Your task to perform on an android device: delete location history Image 0: 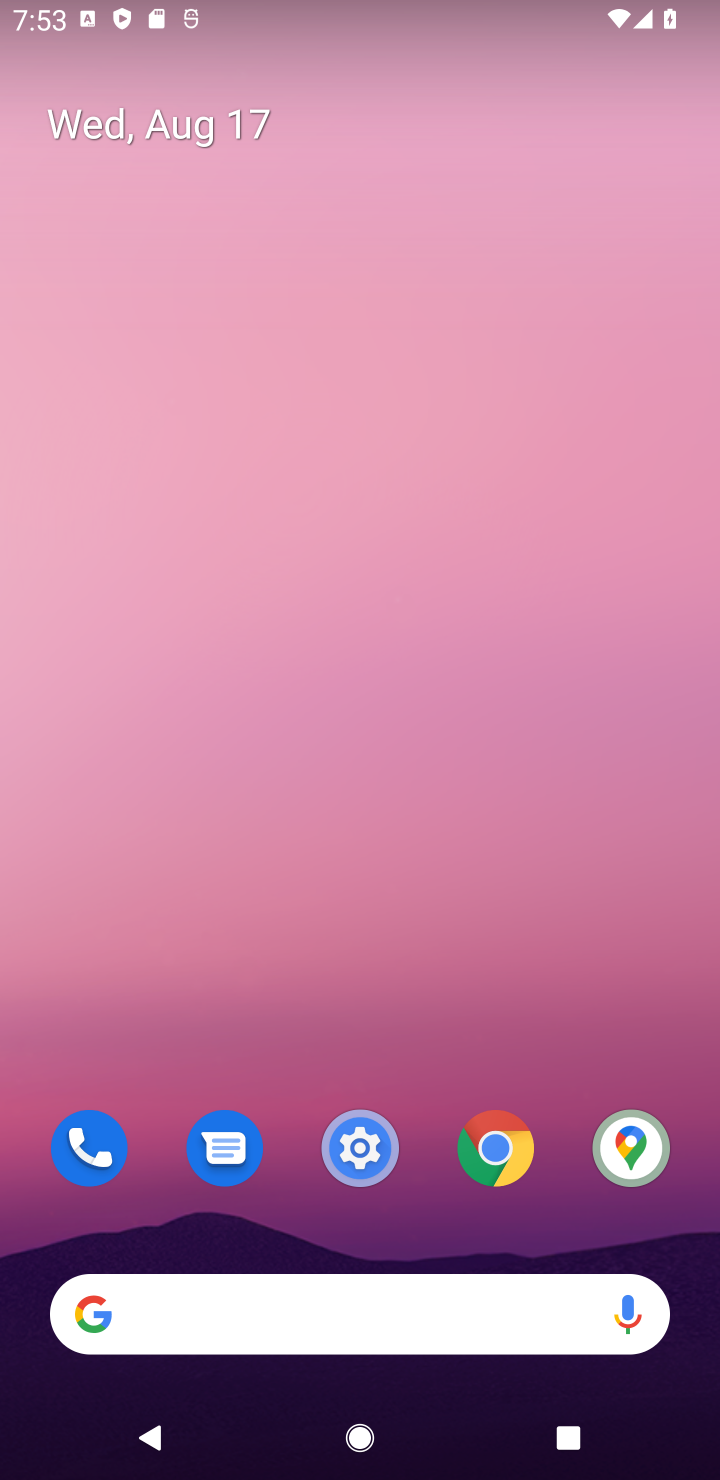
Step 0: click (633, 1151)
Your task to perform on an android device: delete location history Image 1: 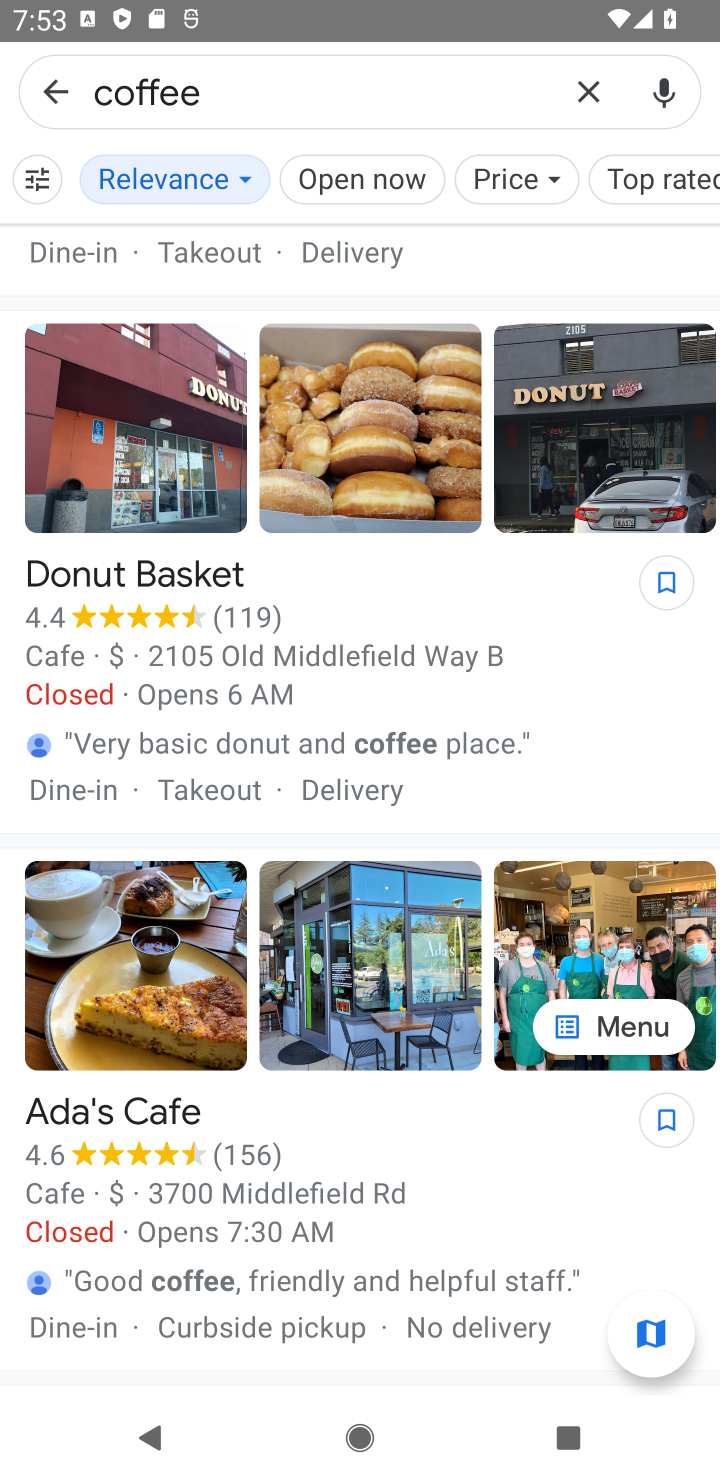
Step 1: click (588, 88)
Your task to perform on an android device: delete location history Image 2: 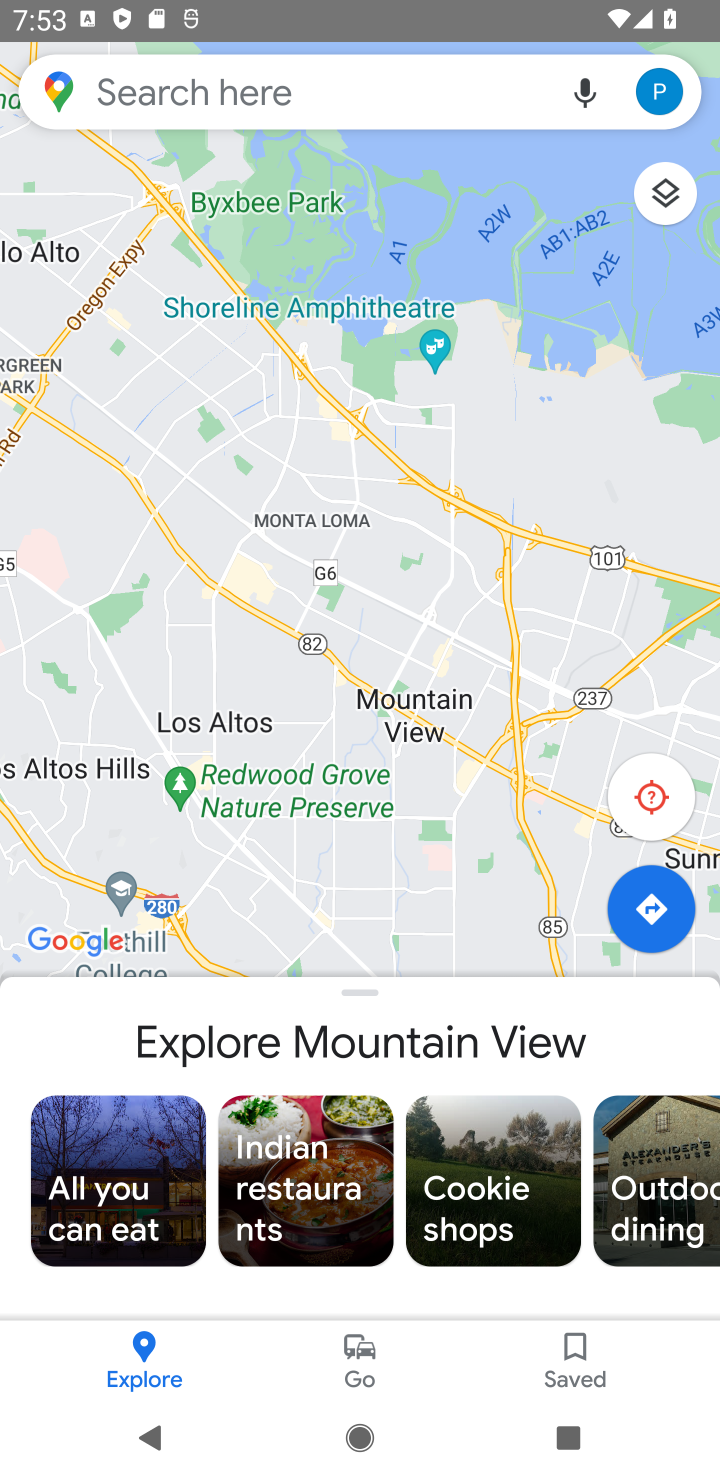
Step 2: click (661, 93)
Your task to perform on an android device: delete location history Image 3: 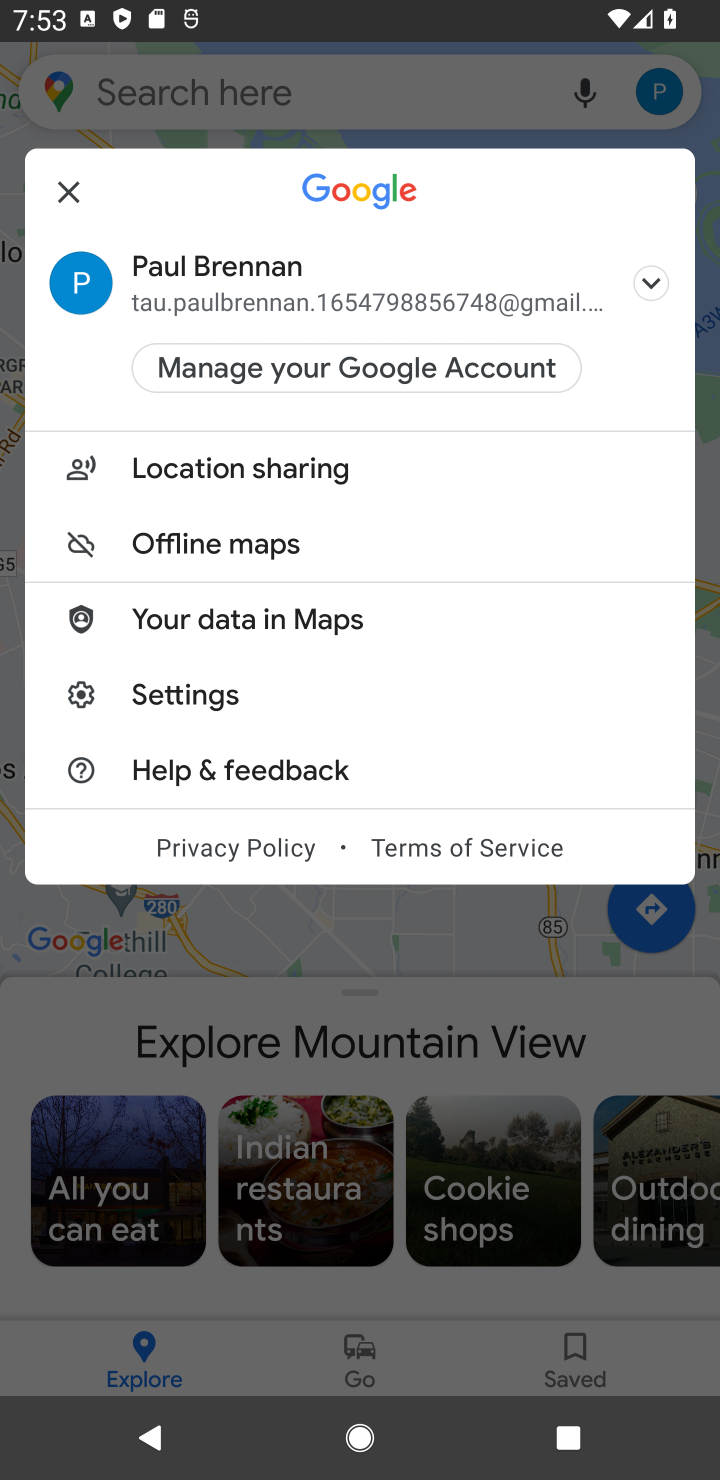
Step 3: click (166, 697)
Your task to perform on an android device: delete location history Image 4: 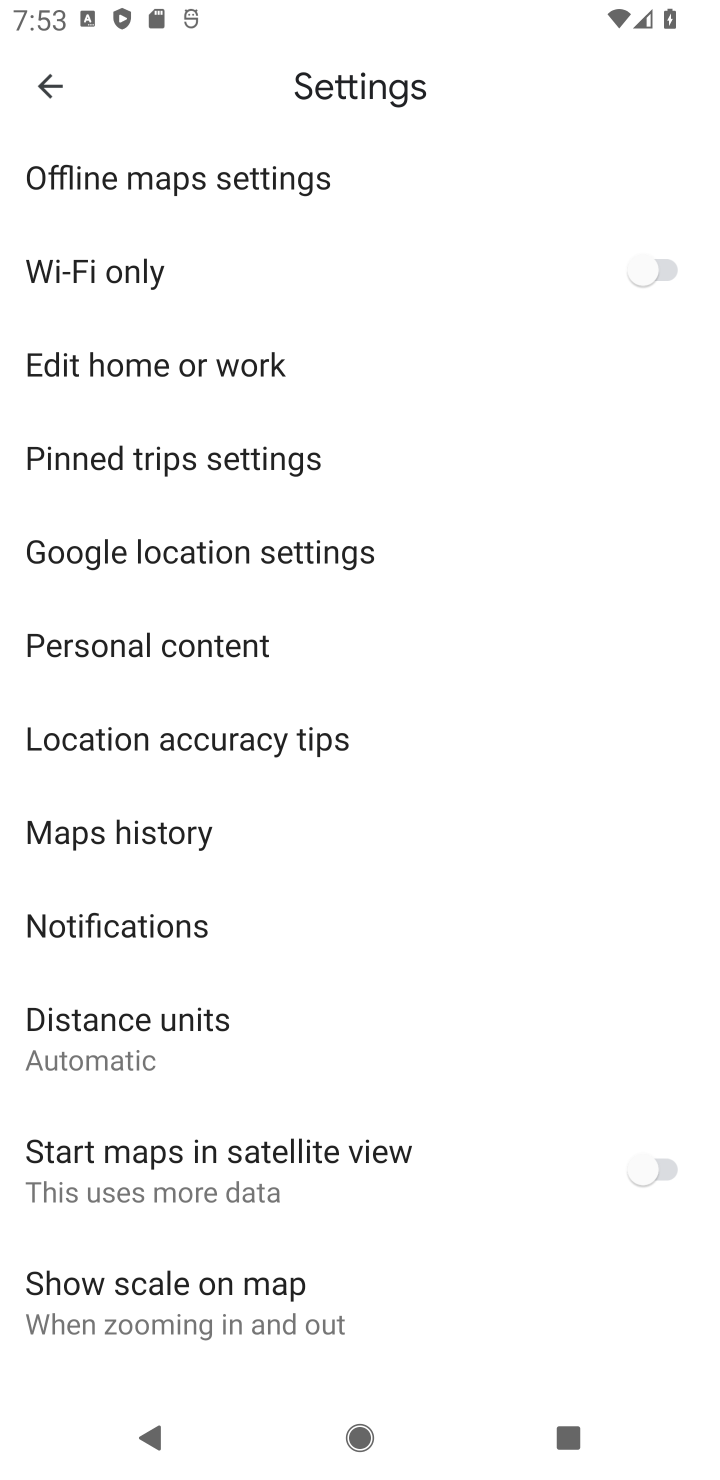
Step 4: click (153, 644)
Your task to perform on an android device: delete location history Image 5: 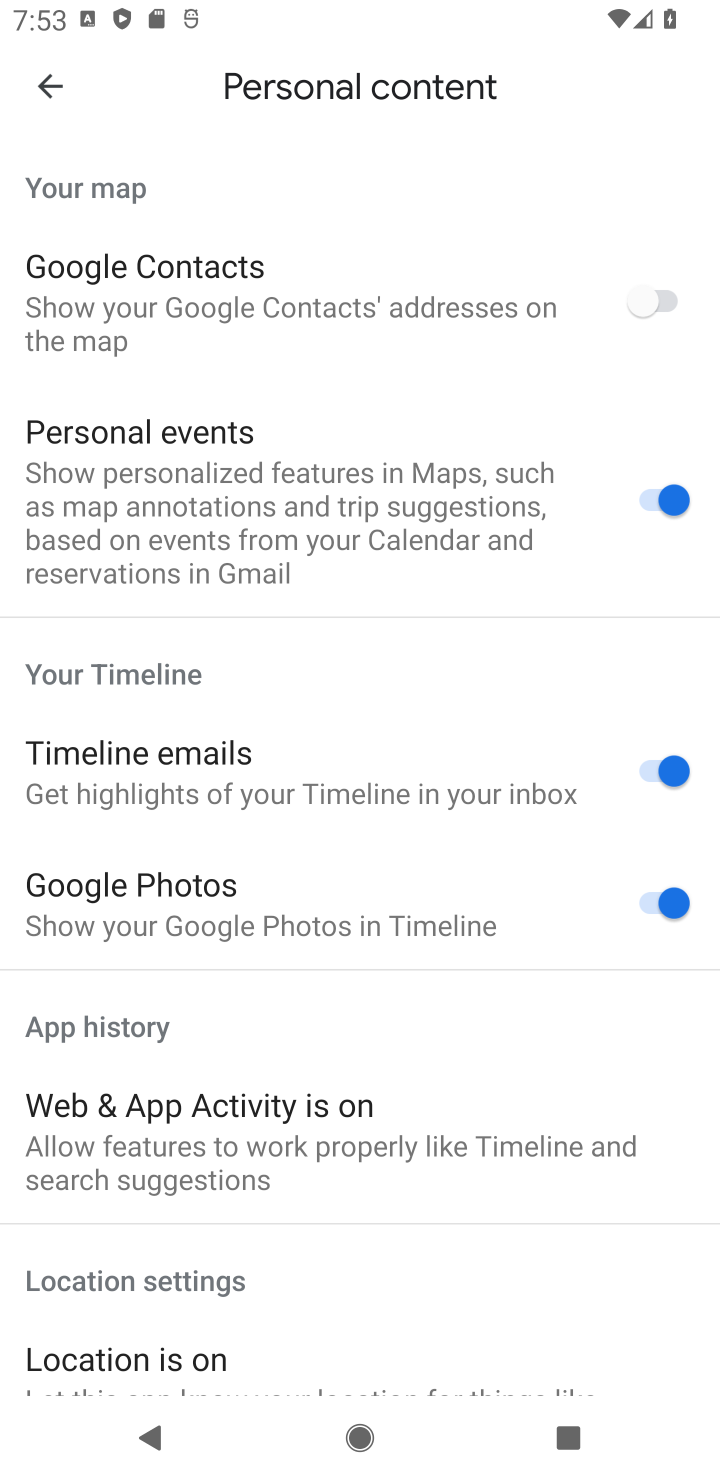
Step 5: drag from (457, 1003) to (463, 287)
Your task to perform on an android device: delete location history Image 6: 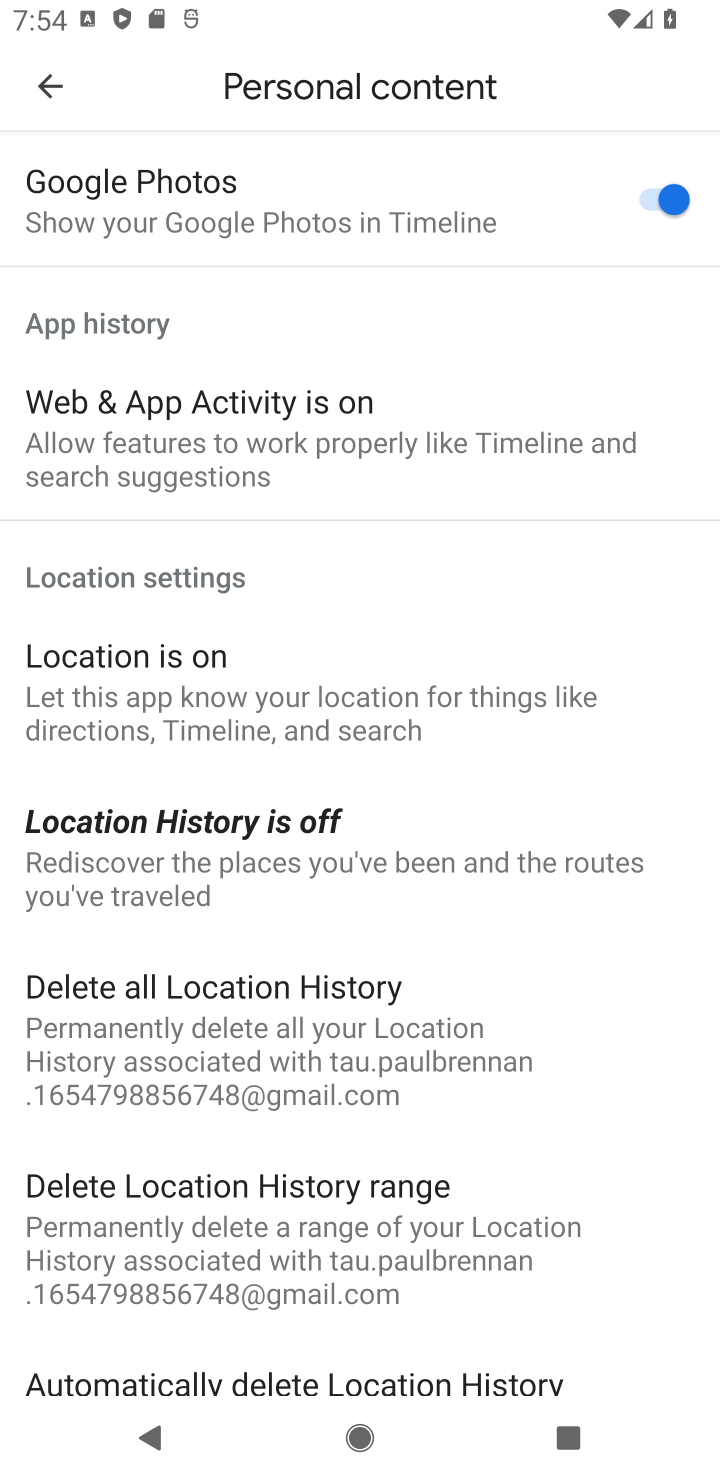
Step 6: click (193, 1024)
Your task to perform on an android device: delete location history Image 7: 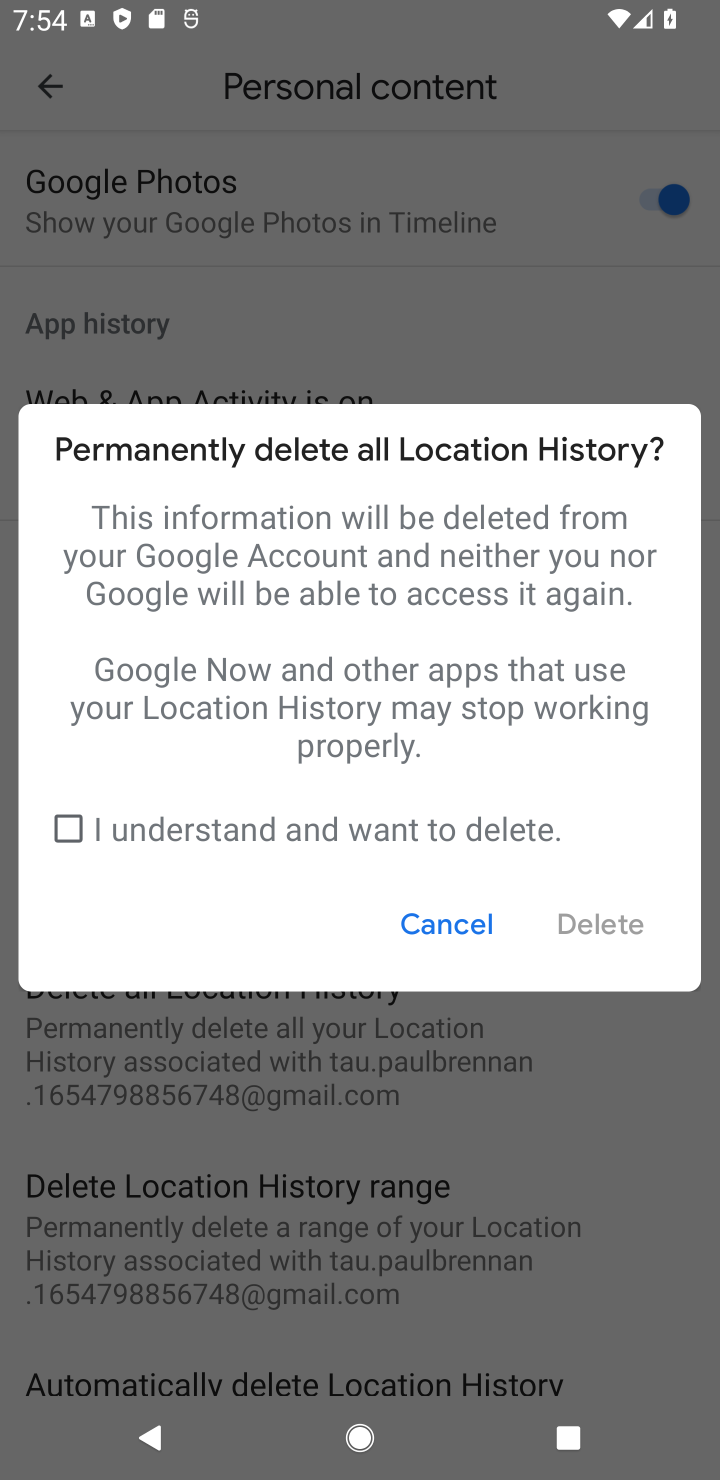
Step 7: click (71, 835)
Your task to perform on an android device: delete location history Image 8: 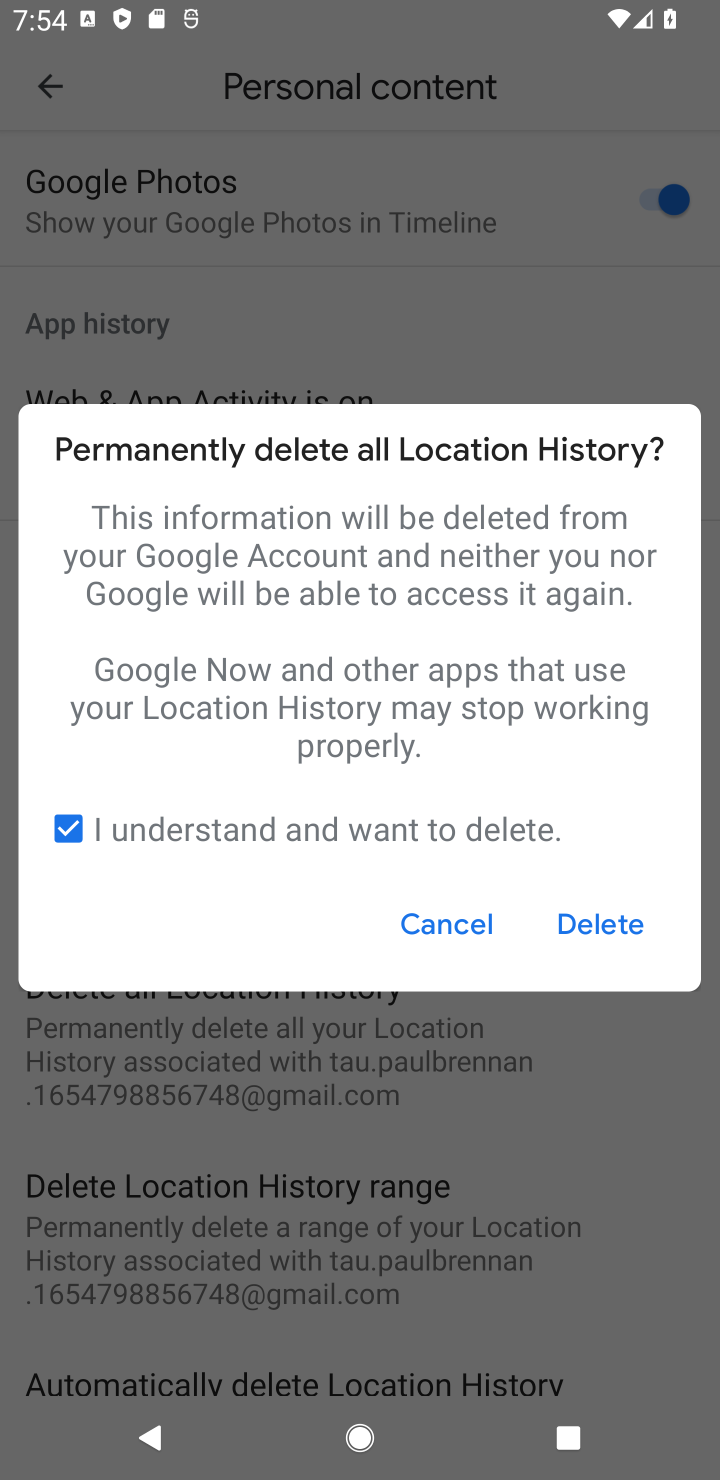
Step 8: click (609, 919)
Your task to perform on an android device: delete location history Image 9: 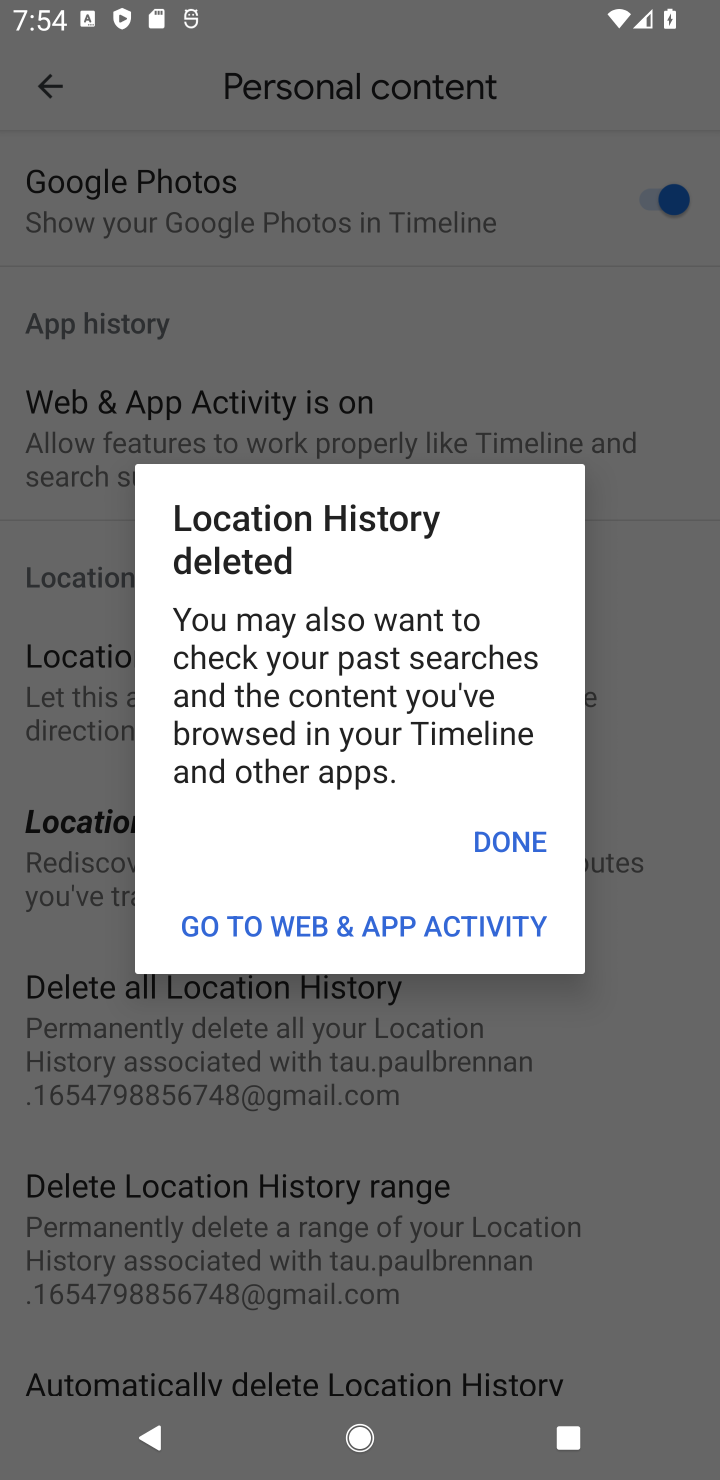
Step 9: click (505, 845)
Your task to perform on an android device: delete location history Image 10: 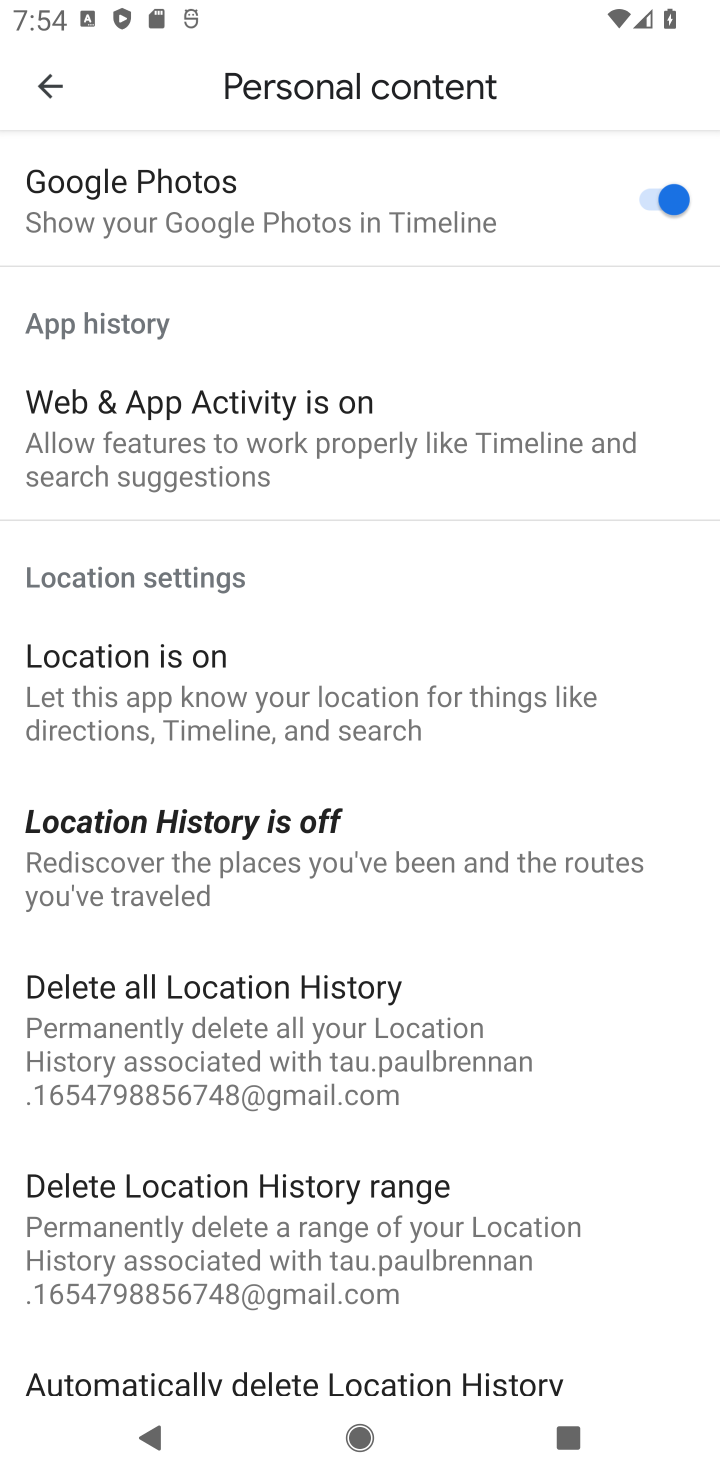
Step 10: task complete